Your task to perform on an android device: Go to location settings Image 0: 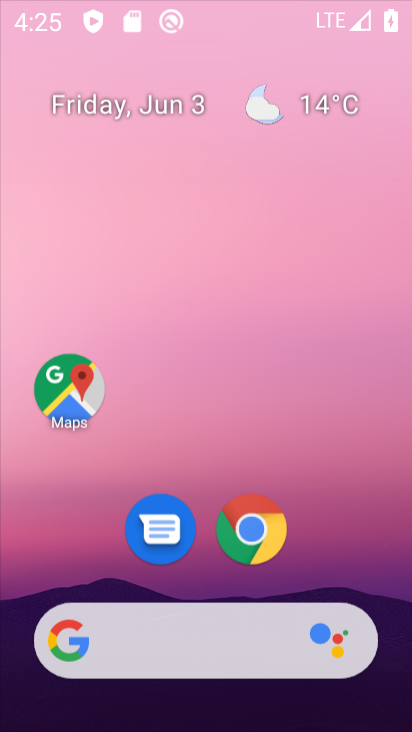
Step 0: press home button
Your task to perform on an android device: Go to location settings Image 1: 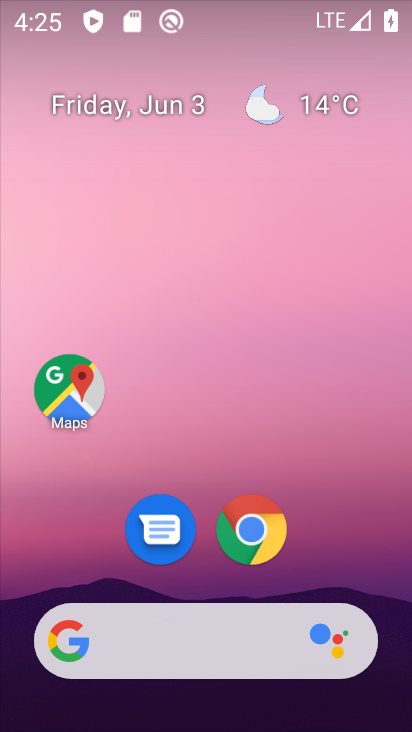
Step 1: press home button
Your task to perform on an android device: Go to location settings Image 2: 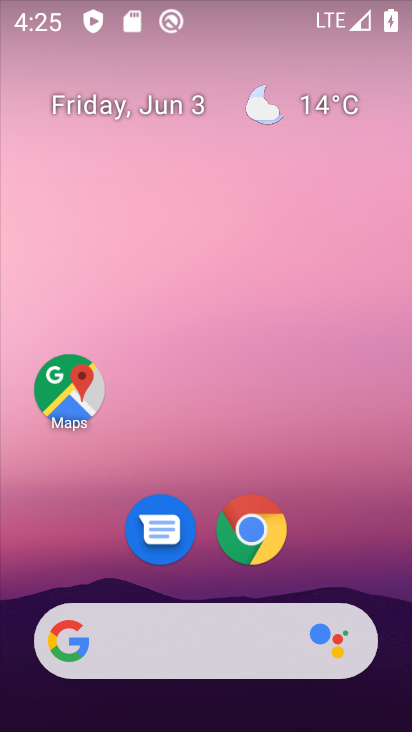
Step 2: drag from (207, 576) to (208, 56)
Your task to perform on an android device: Go to location settings Image 3: 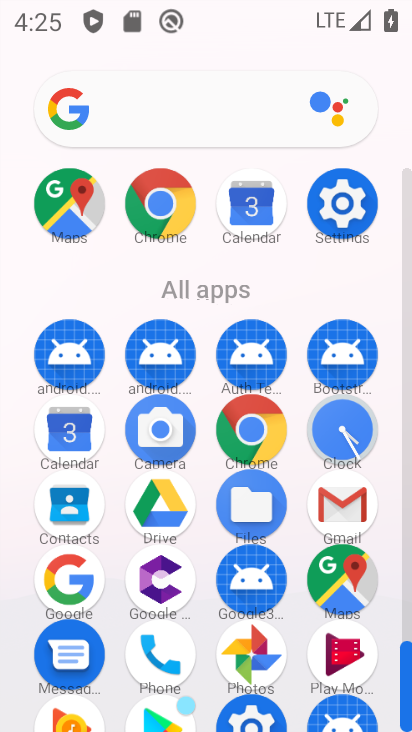
Step 3: click (339, 197)
Your task to perform on an android device: Go to location settings Image 4: 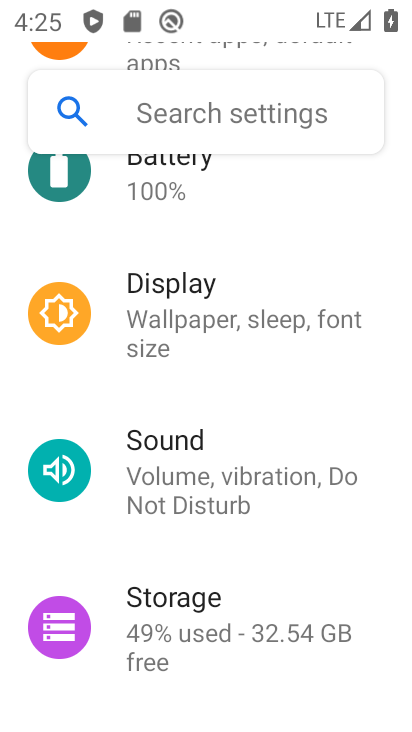
Step 4: drag from (219, 664) to (248, 153)
Your task to perform on an android device: Go to location settings Image 5: 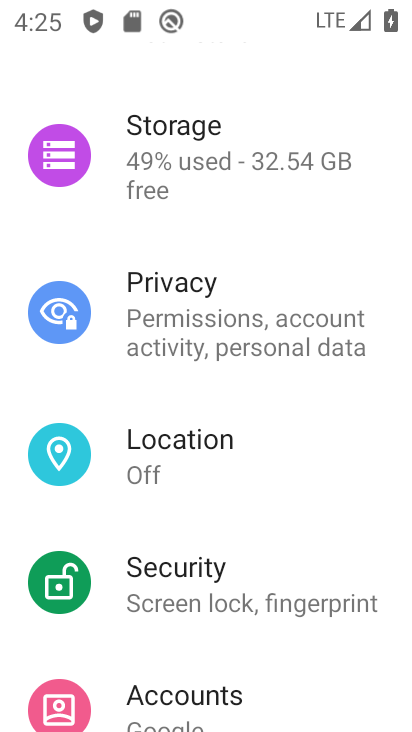
Step 5: click (185, 454)
Your task to perform on an android device: Go to location settings Image 6: 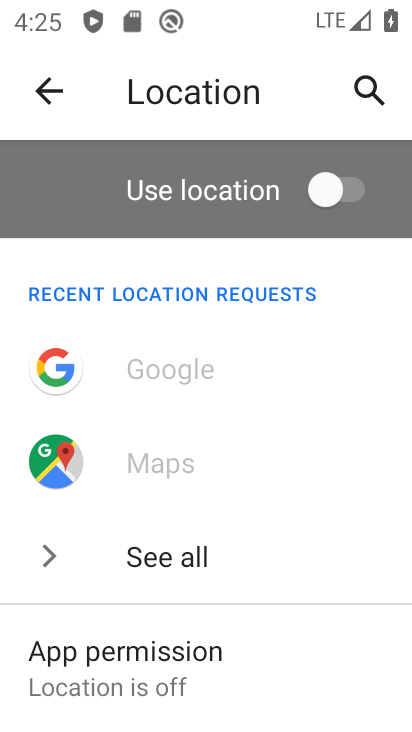
Step 6: drag from (236, 685) to (255, 240)
Your task to perform on an android device: Go to location settings Image 7: 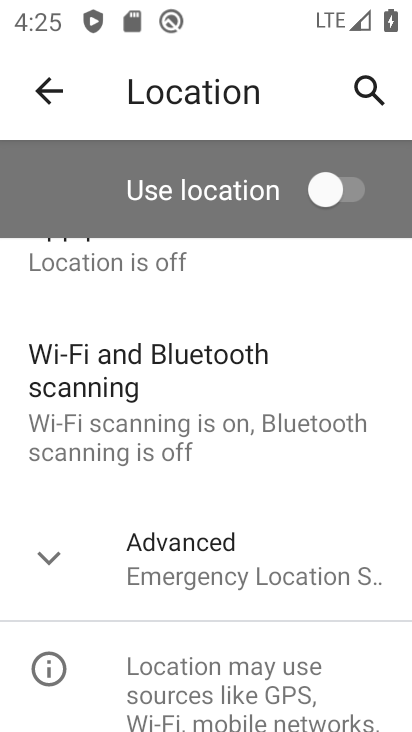
Step 7: drag from (269, 521) to (46, 418)
Your task to perform on an android device: Go to location settings Image 8: 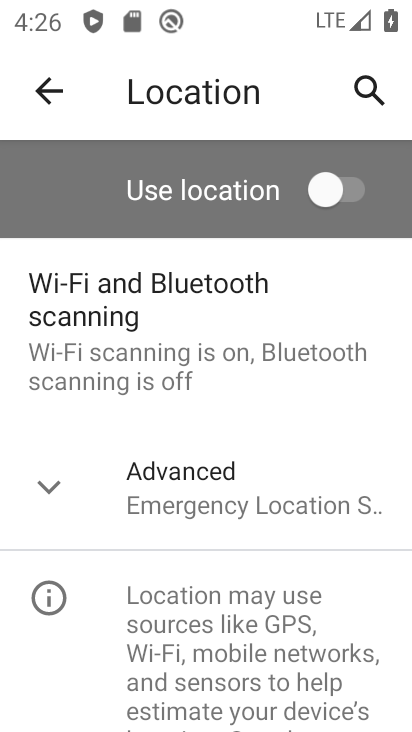
Step 8: click (49, 477)
Your task to perform on an android device: Go to location settings Image 9: 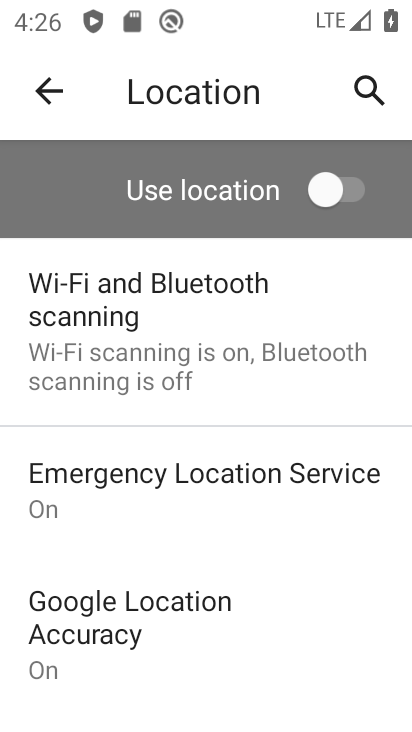
Step 9: task complete